Your task to perform on an android device: change notifications settings Image 0: 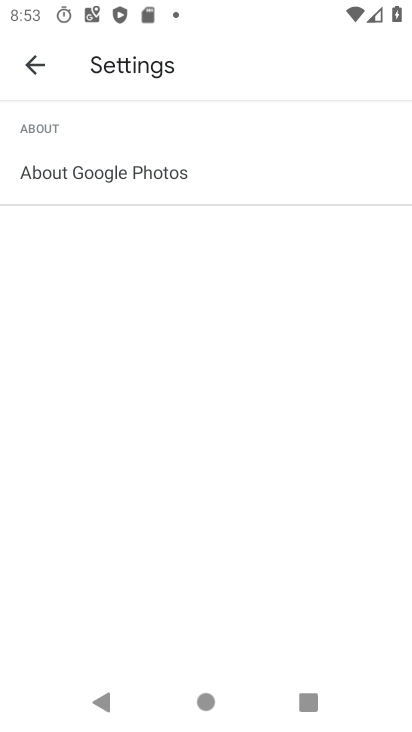
Step 0: press home button
Your task to perform on an android device: change notifications settings Image 1: 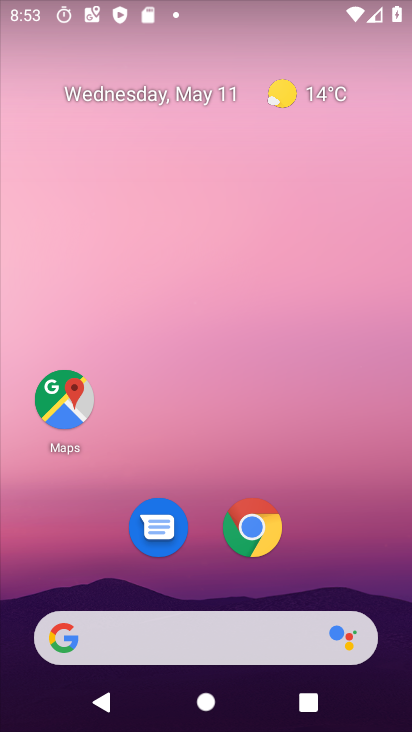
Step 1: drag from (287, 579) to (310, 67)
Your task to perform on an android device: change notifications settings Image 2: 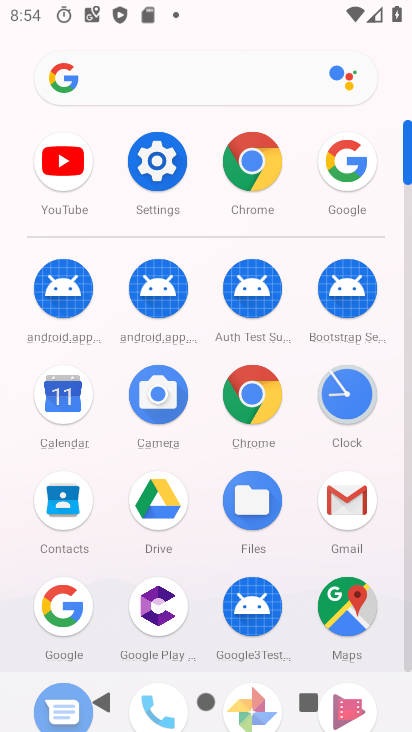
Step 2: click (159, 164)
Your task to perform on an android device: change notifications settings Image 3: 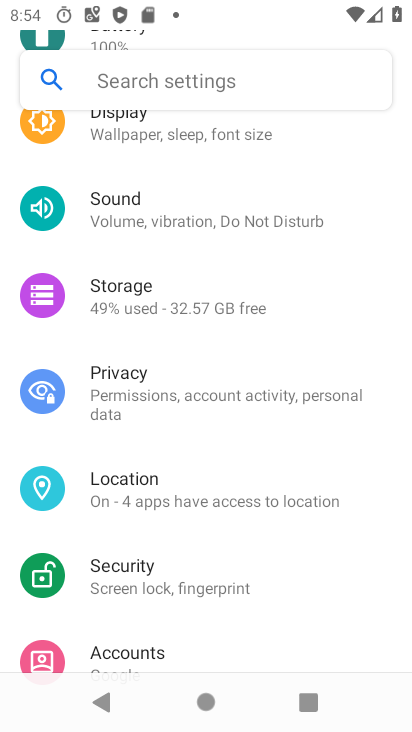
Step 3: drag from (194, 257) to (171, 537)
Your task to perform on an android device: change notifications settings Image 4: 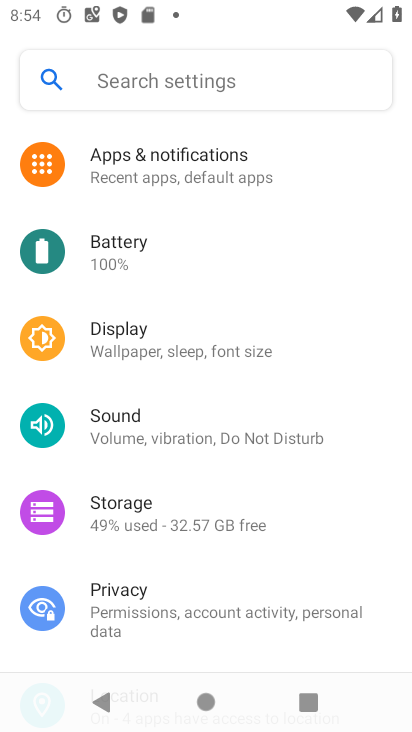
Step 4: drag from (247, 323) to (215, 567)
Your task to perform on an android device: change notifications settings Image 5: 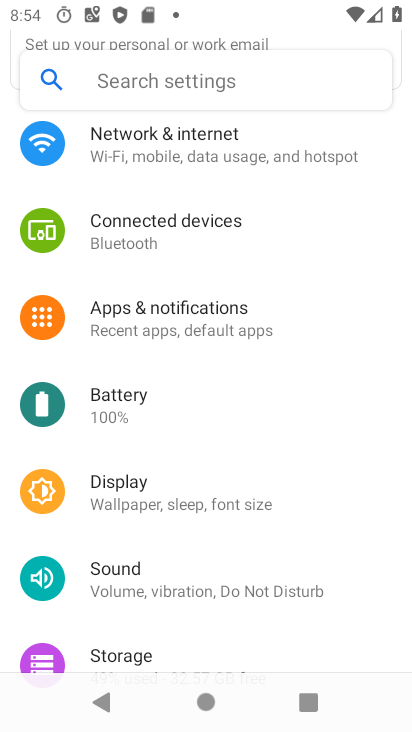
Step 5: click (240, 321)
Your task to perform on an android device: change notifications settings Image 6: 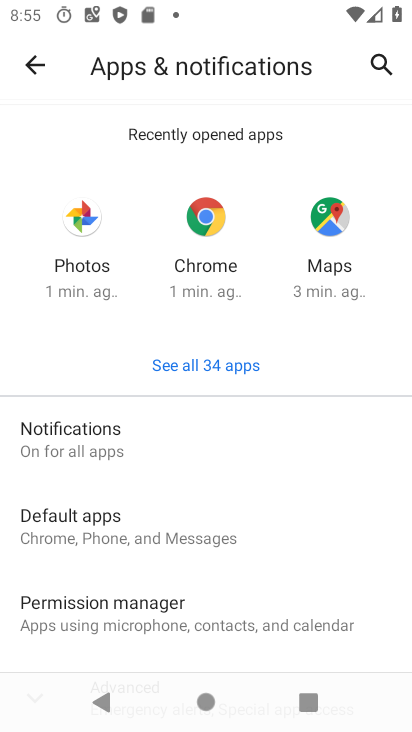
Step 6: click (148, 447)
Your task to perform on an android device: change notifications settings Image 7: 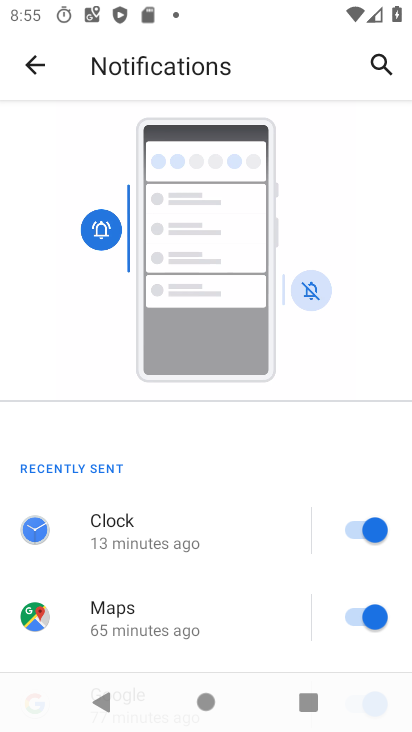
Step 7: drag from (147, 588) to (167, 233)
Your task to perform on an android device: change notifications settings Image 8: 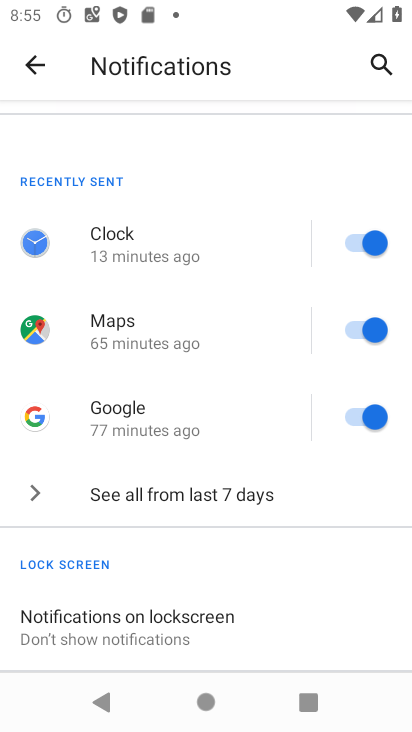
Step 8: drag from (194, 569) to (215, 306)
Your task to perform on an android device: change notifications settings Image 9: 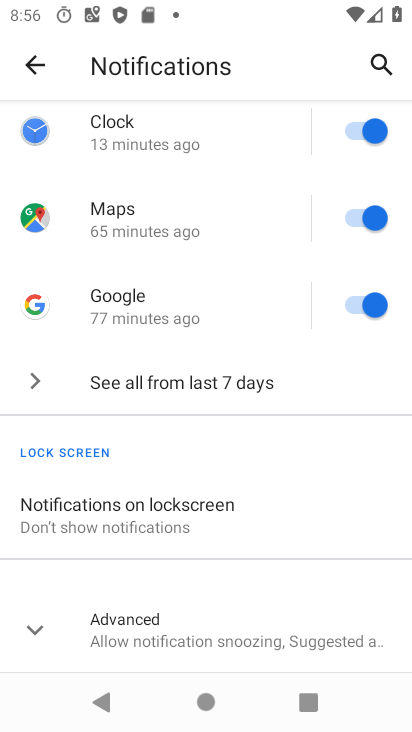
Step 9: click (370, 229)
Your task to perform on an android device: change notifications settings Image 10: 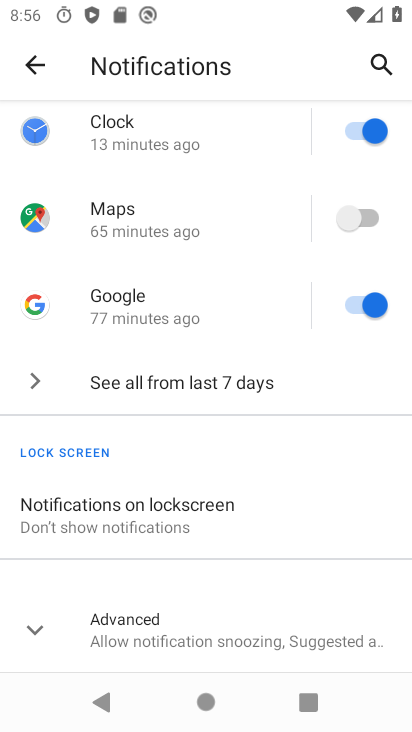
Step 10: task complete